Your task to perform on an android device: Open network settings Image 0: 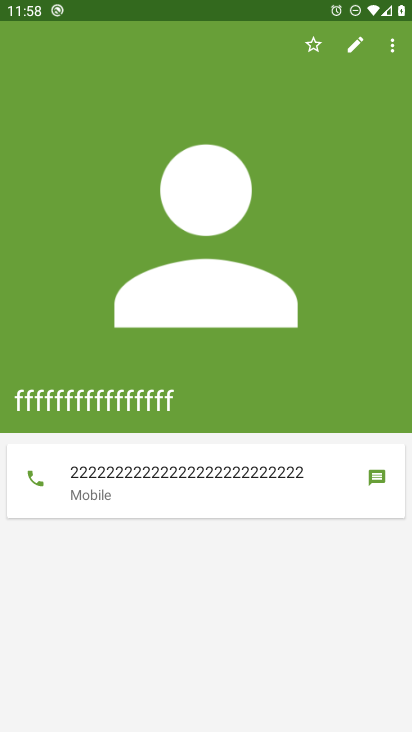
Step 0: press home button
Your task to perform on an android device: Open network settings Image 1: 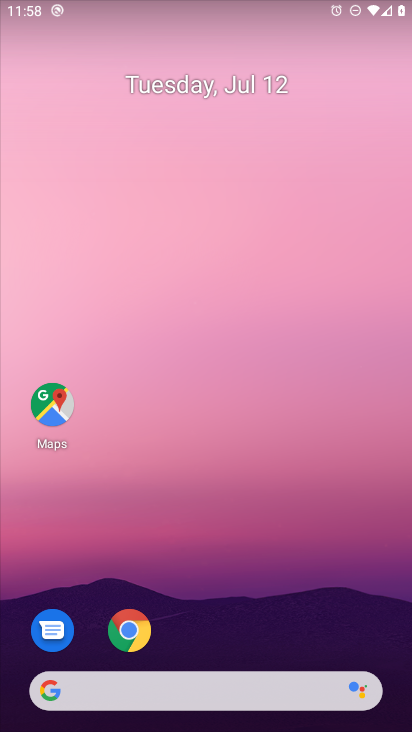
Step 1: drag from (306, 576) to (301, 179)
Your task to perform on an android device: Open network settings Image 2: 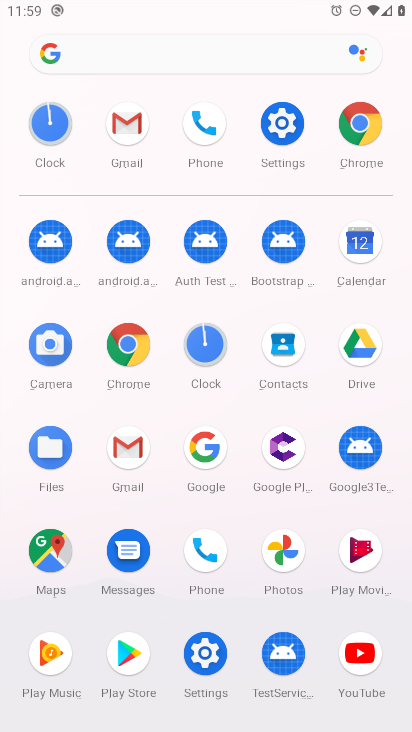
Step 2: click (296, 138)
Your task to perform on an android device: Open network settings Image 3: 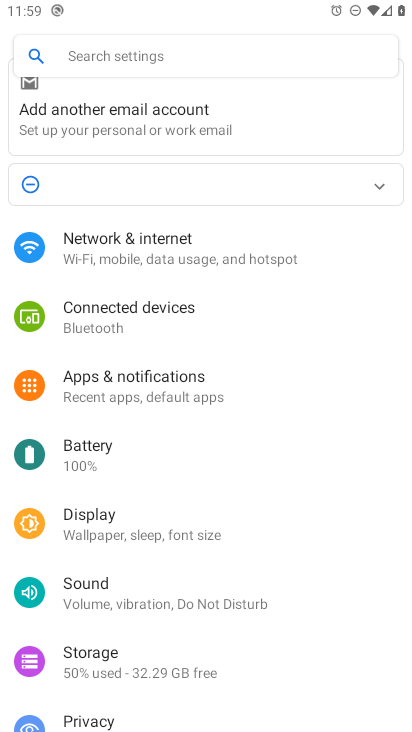
Step 3: click (161, 260)
Your task to perform on an android device: Open network settings Image 4: 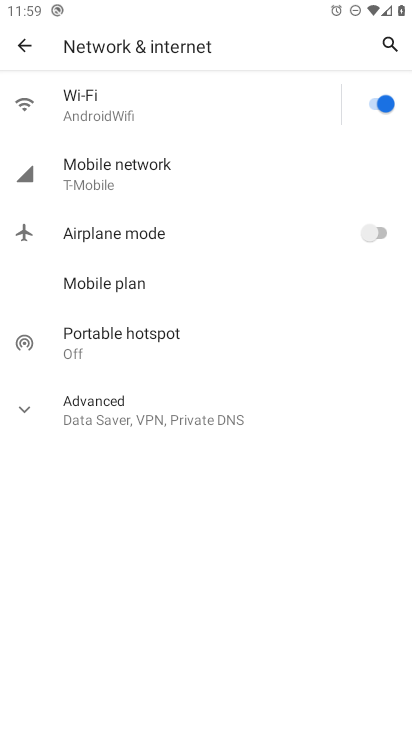
Step 4: task complete